Your task to perform on an android device: visit the assistant section in the google photos Image 0: 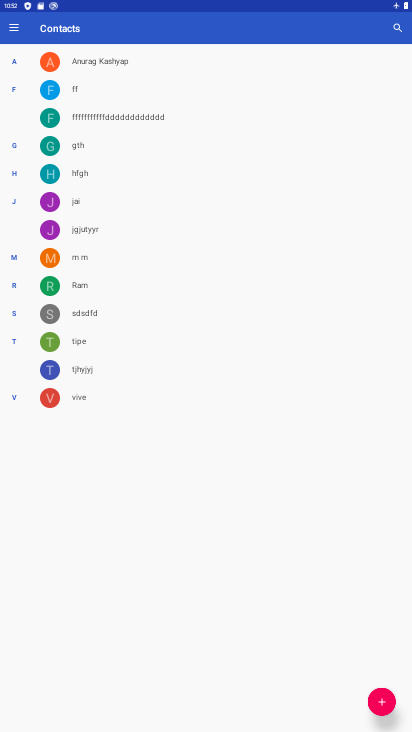
Step 0: press home button
Your task to perform on an android device: visit the assistant section in the google photos Image 1: 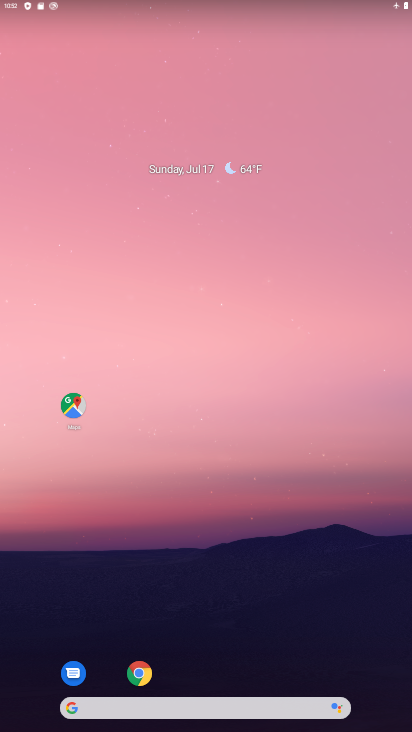
Step 1: drag from (244, 626) to (214, 155)
Your task to perform on an android device: visit the assistant section in the google photos Image 2: 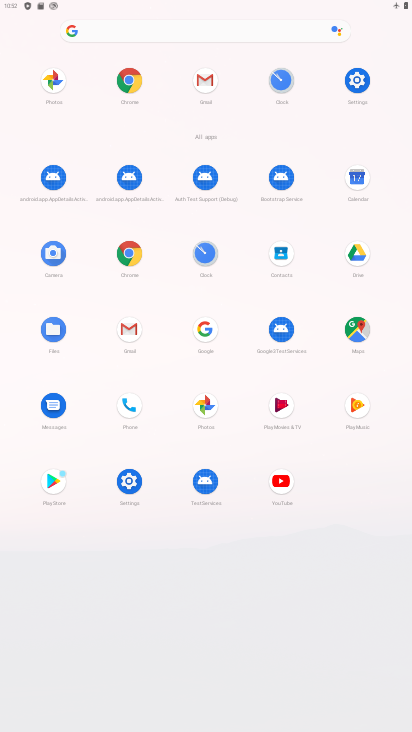
Step 2: click (199, 421)
Your task to perform on an android device: visit the assistant section in the google photos Image 3: 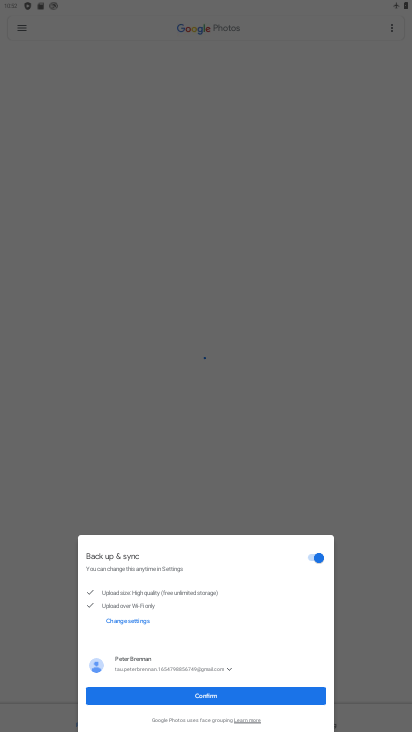
Step 3: click (224, 701)
Your task to perform on an android device: visit the assistant section in the google photos Image 4: 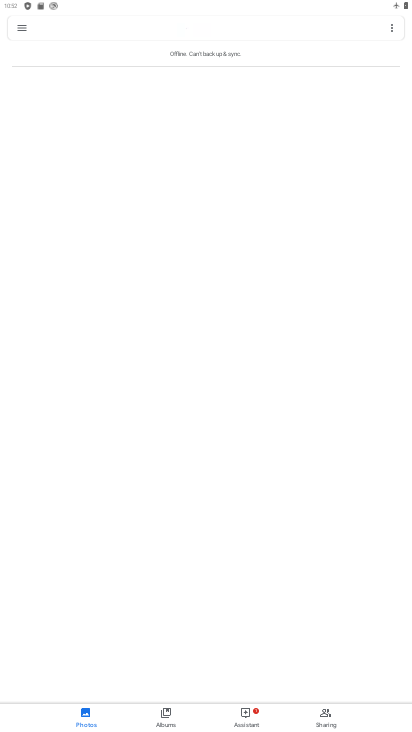
Step 4: click (250, 711)
Your task to perform on an android device: visit the assistant section in the google photos Image 5: 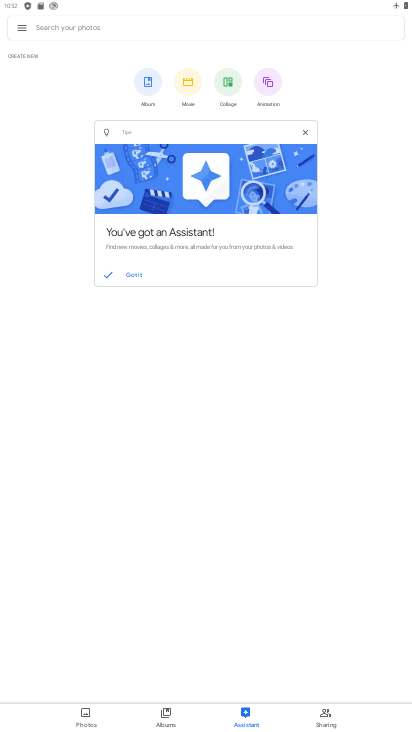
Step 5: task complete